Your task to perform on an android device: find photos in the google photos app Image 0: 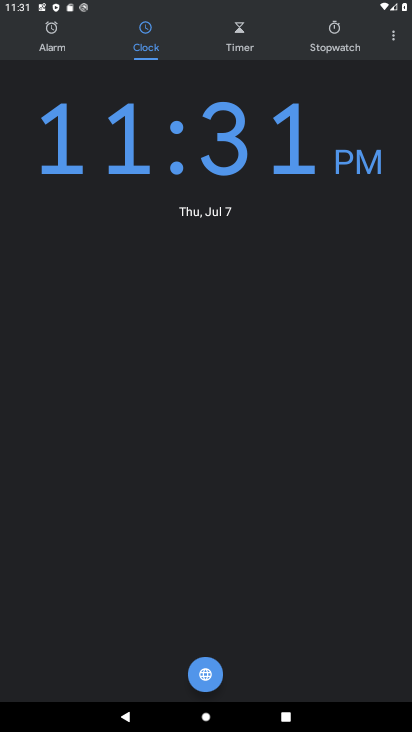
Step 0: press home button
Your task to perform on an android device: find photos in the google photos app Image 1: 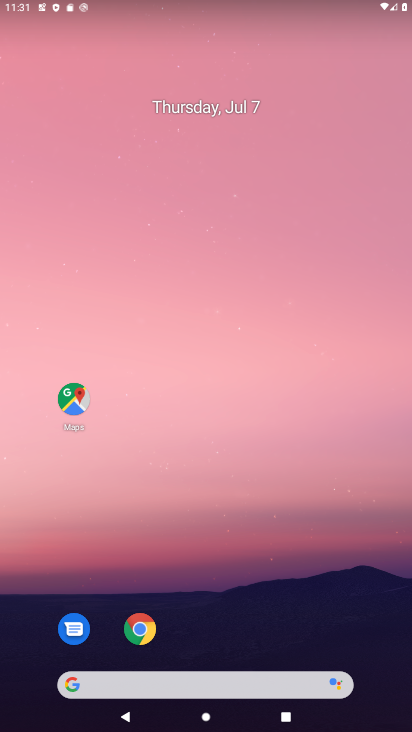
Step 1: drag from (316, 608) to (266, 146)
Your task to perform on an android device: find photos in the google photos app Image 2: 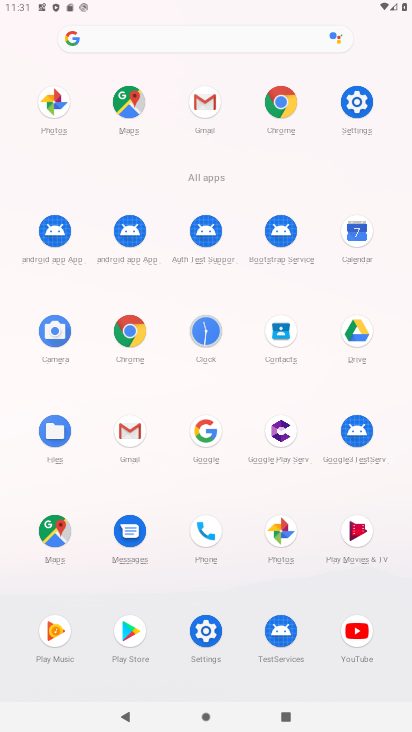
Step 2: click (281, 530)
Your task to perform on an android device: find photos in the google photos app Image 3: 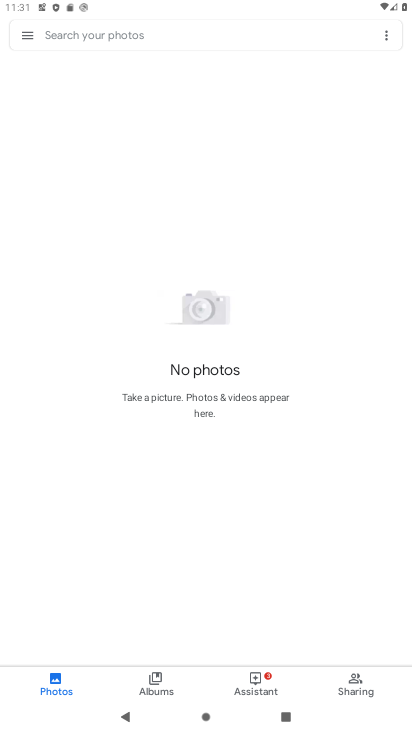
Step 3: task complete